Your task to perform on an android device: add a contact in the contacts app Image 0: 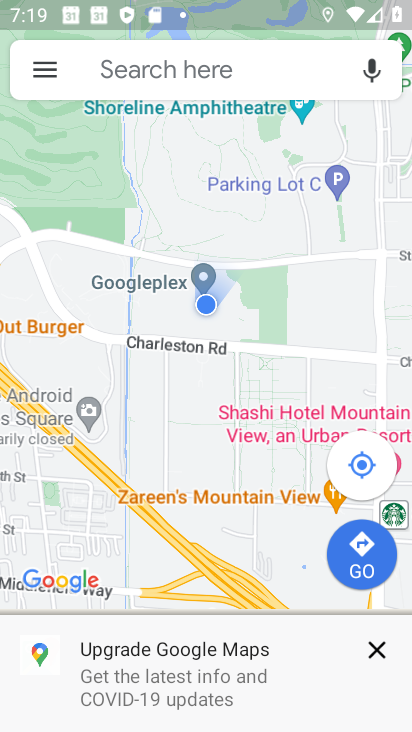
Step 0: press home button
Your task to perform on an android device: add a contact in the contacts app Image 1: 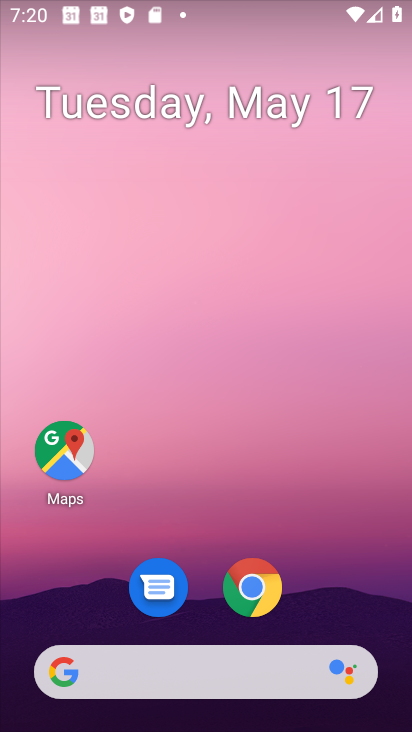
Step 1: drag from (228, 675) to (334, 242)
Your task to perform on an android device: add a contact in the contacts app Image 2: 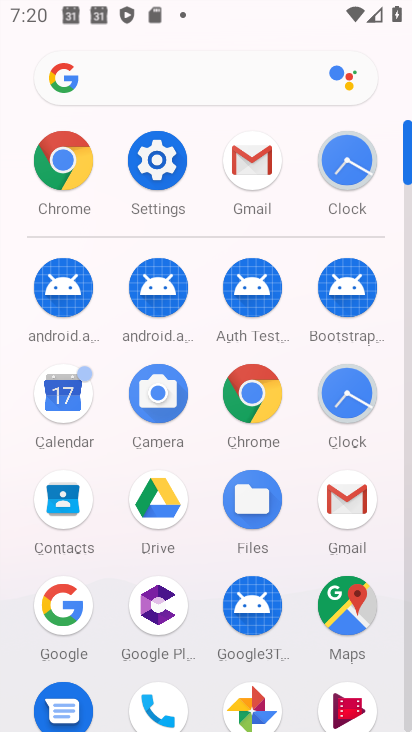
Step 2: click (163, 685)
Your task to perform on an android device: add a contact in the contacts app Image 3: 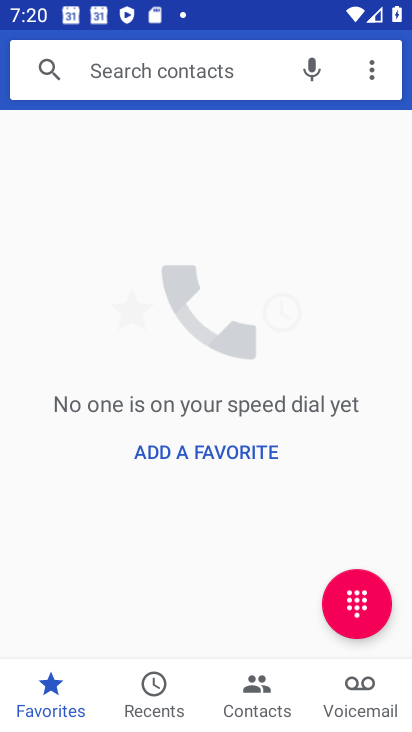
Step 3: click (247, 696)
Your task to perform on an android device: add a contact in the contacts app Image 4: 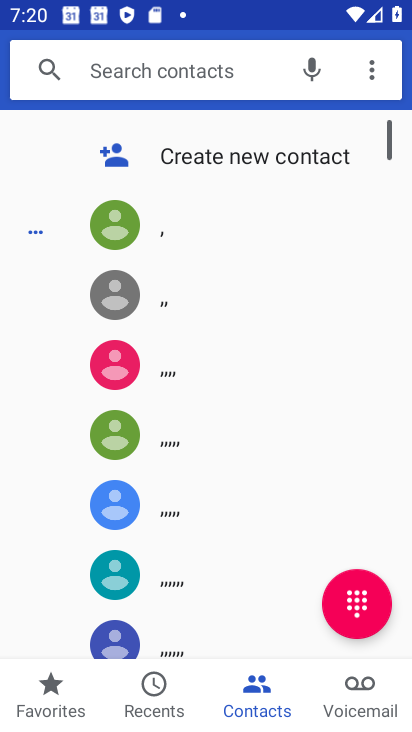
Step 4: click (242, 151)
Your task to perform on an android device: add a contact in the contacts app Image 5: 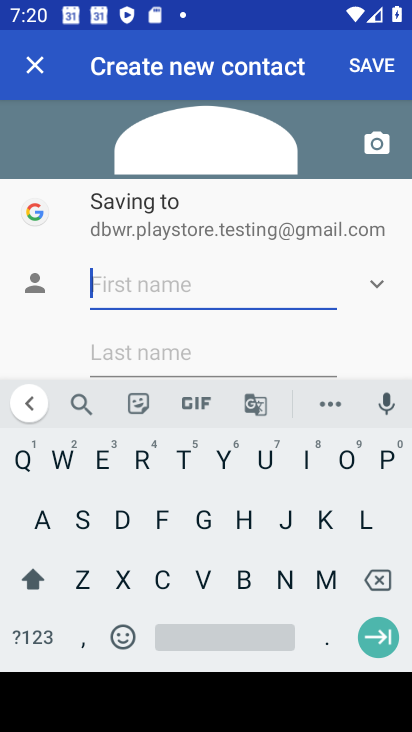
Step 5: click (228, 503)
Your task to perform on an android device: add a contact in the contacts app Image 6: 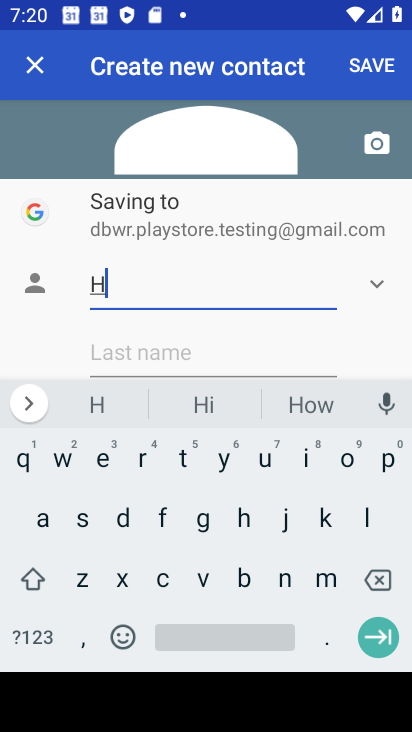
Step 6: click (159, 533)
Your task to perform on an android device: add a contact in the contacts app Image 7: 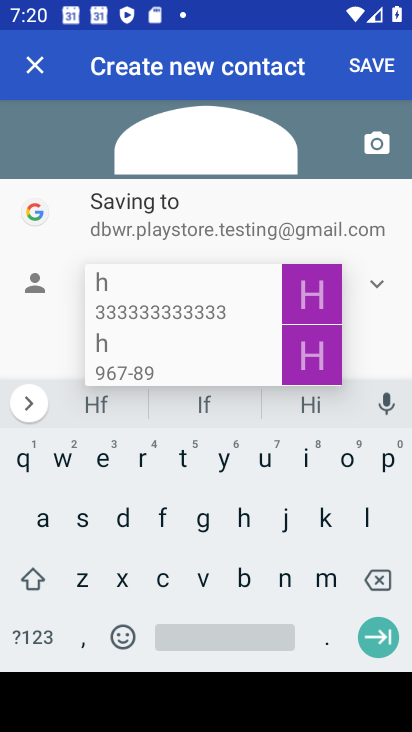
Step 7: click (160, 573)
Your task to perform on an android device: add a contact in the contacts app Image 8: 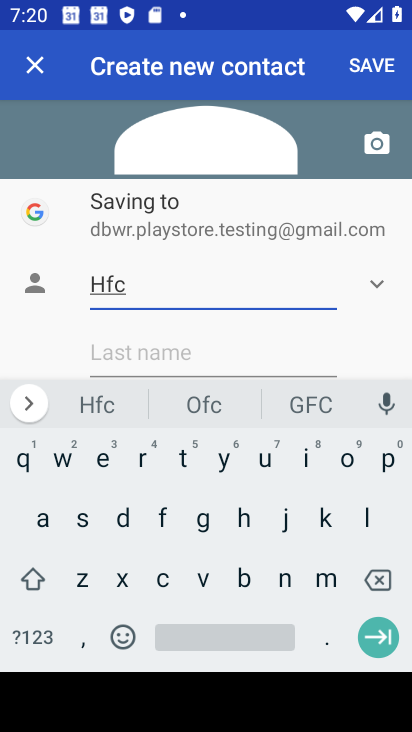
Step 8: drag from (292, 269) to (304, 145)
Your task to perform on an android device: add a contact in the contacts app Image 9: 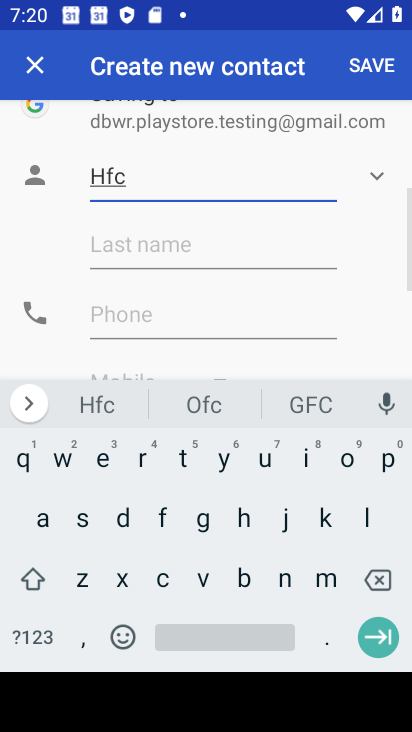
Step 9: click (193, 316)
Your task to perform on an android device: add a contact in the contacts app Image 10: 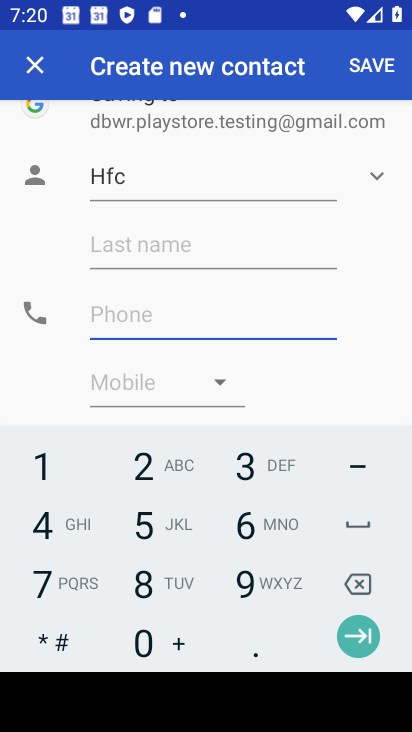
Step 10: click (158, 541)
Your task to perform on an android device: add a contact in the contacts app Image 11: 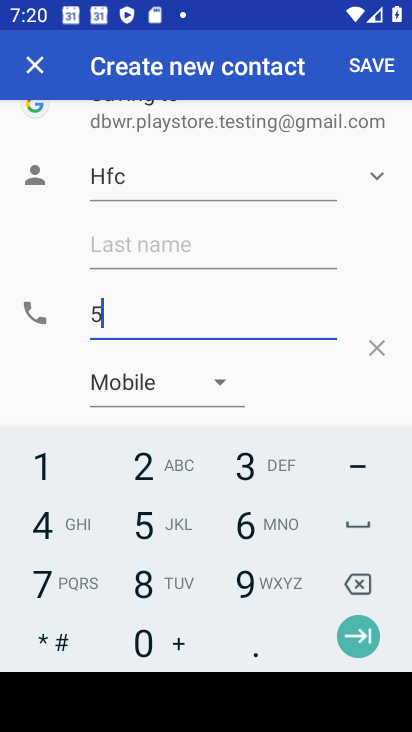
Step 11: click (58, 536)
Your task to perform on an android device: add a contact in the contacts app Image 12: 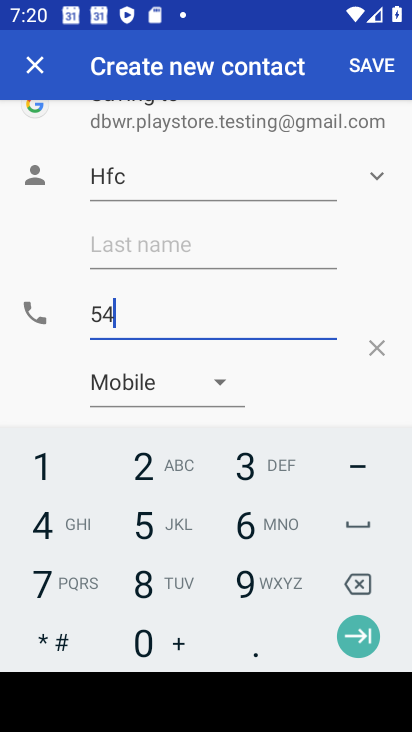
Step 12: click (127, 589)
Your task to perform on an android device: add a contact in the contacts app Image 13: 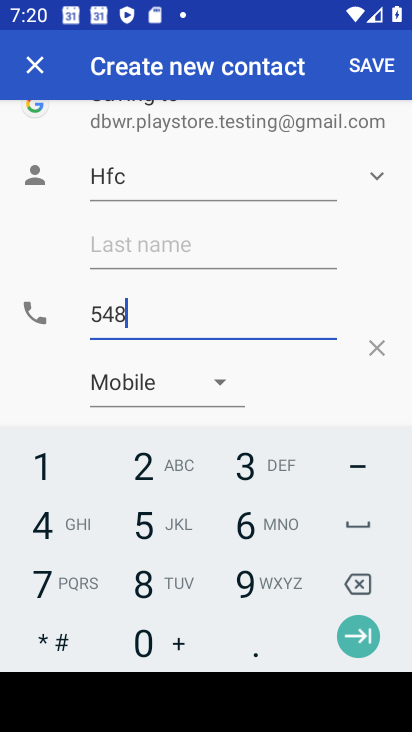
Step 13: click (58, 484)
Your task to perform on an android device: add a contact in the contacts app Image 14: 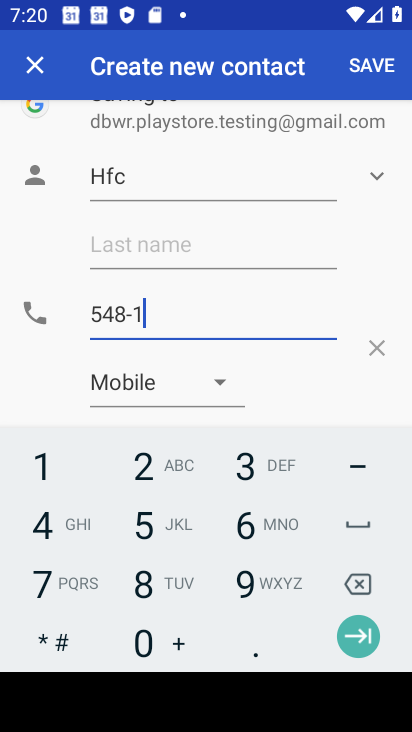
Step 14: click (254, 526)
Your task to perform on an android device: add a contact in the contacts app Image 15: 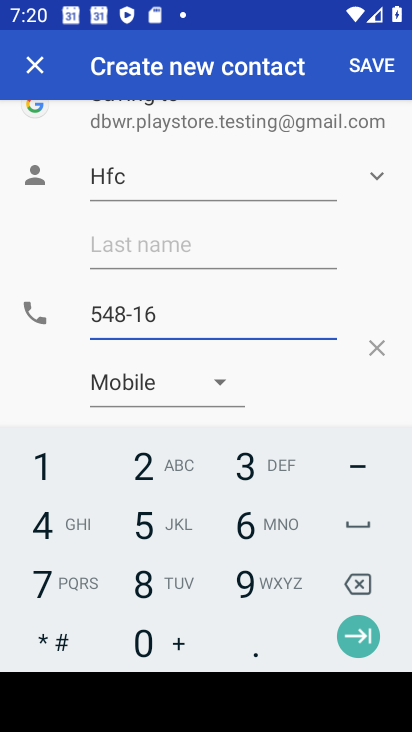
Step 15: click (382, 60)
Your task to perform on an android device: add a contact in the contacts app Image 16: 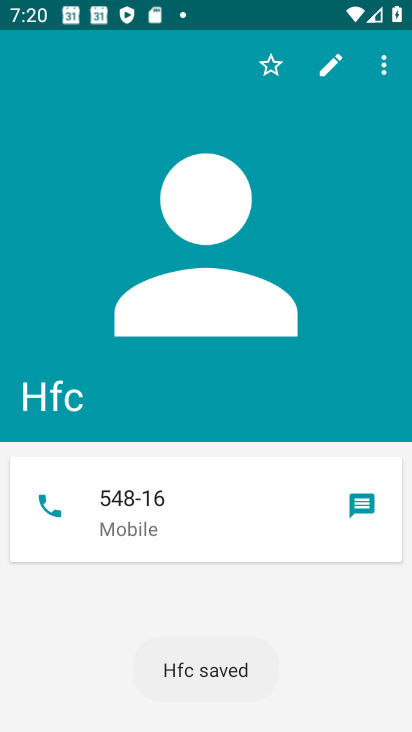
Step 16: task complete